Your task to perform on an android device: Go to eBay Image 0: 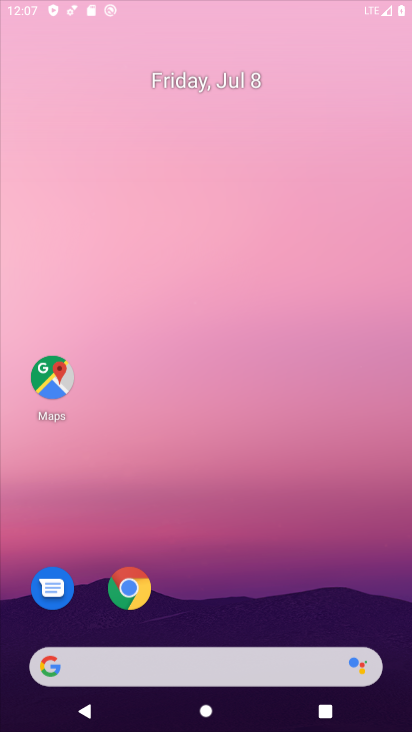
Step 0: press home button
Your task to perform on an android device: Go to eBay Image 1: 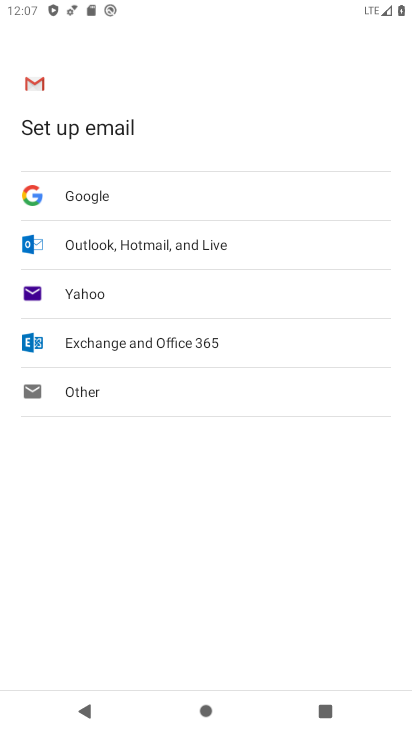
Step 1: click (267, 104)
Your task to perform on an android device: Go to eBay Image 2: 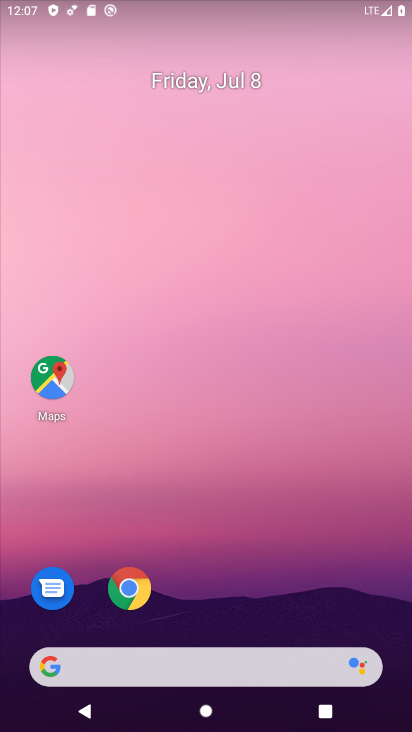
Step 2: drag from (210, 627) to (251, 9)
Your task to perform on an android device: Go to eBay Image 3: 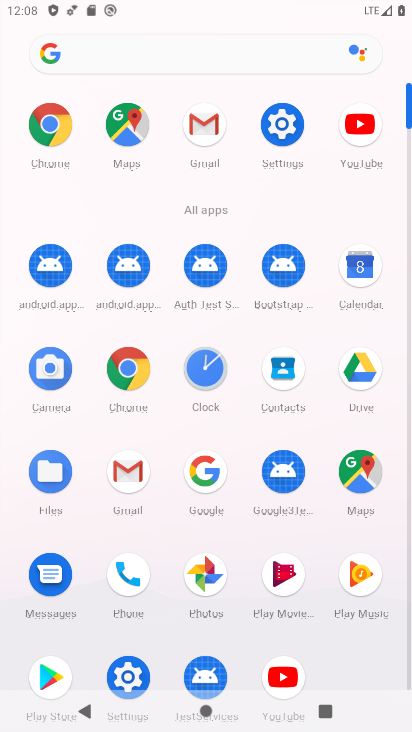
Step 3: click (123, 357)
Your task to perform on an android device: Go to eBay Image 4: 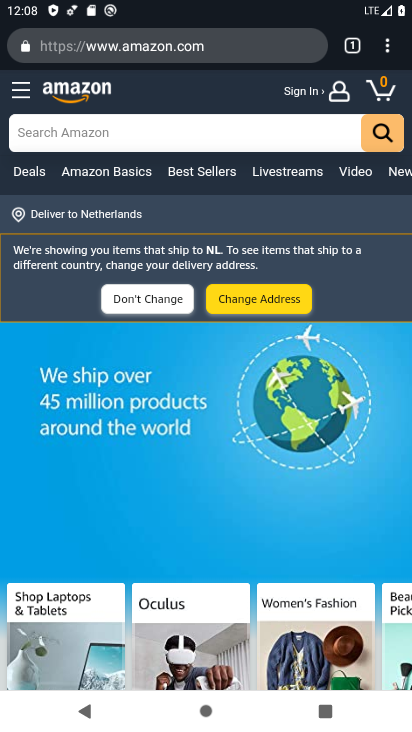
Step 4: click (349, 43)
Your task to perform on an android device: Go to eBay Image 5: 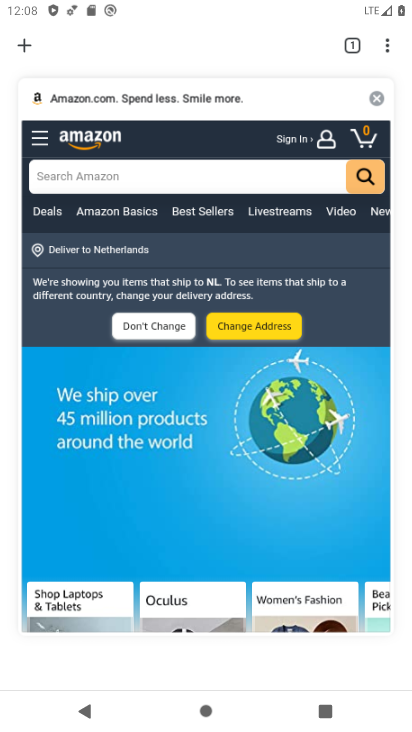
Step 5: click (379, 95)
Your task to perform on an android device: Go to eBay Image 6: 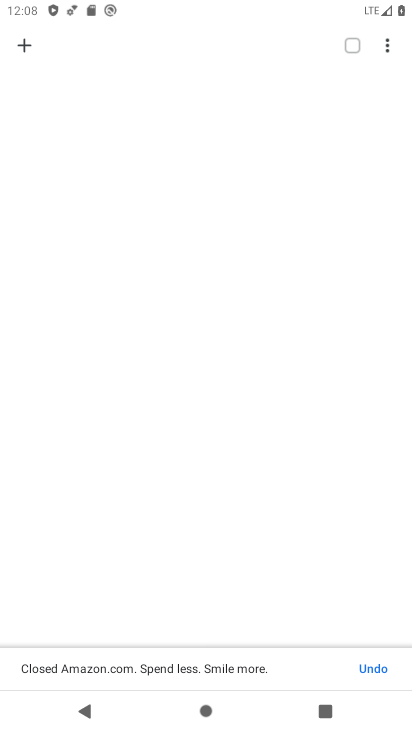
Step 6: click (30, 40)
Your task to perform on an android device: Go to eBay Image 7: 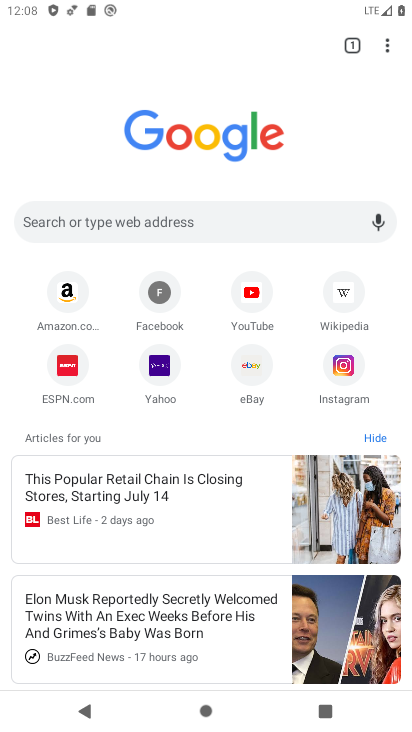
Step 7: click (249, 359)
Your task to perform on an android device: Go to eBay Image 8: 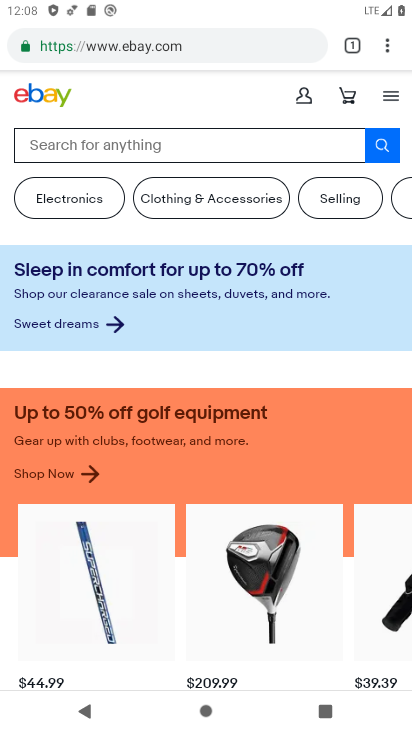
Step 8: drag from (183, 638) to (224, 157)
Your task to perform on an android device: Go to eBay Image 9: 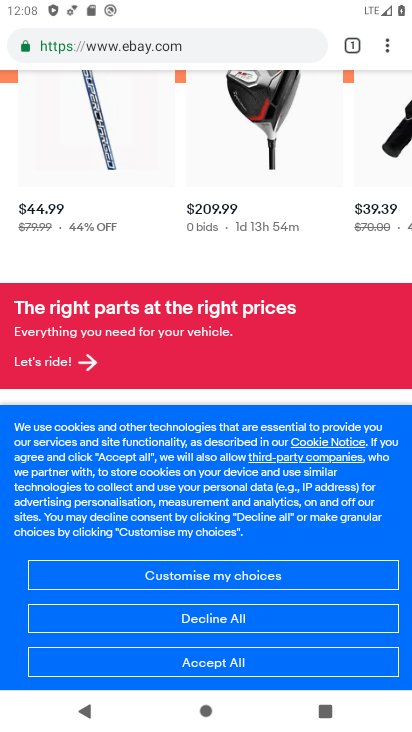
Step 9: click (231, 665)
Your task to perform on an android device: Go to eBay Image 10: 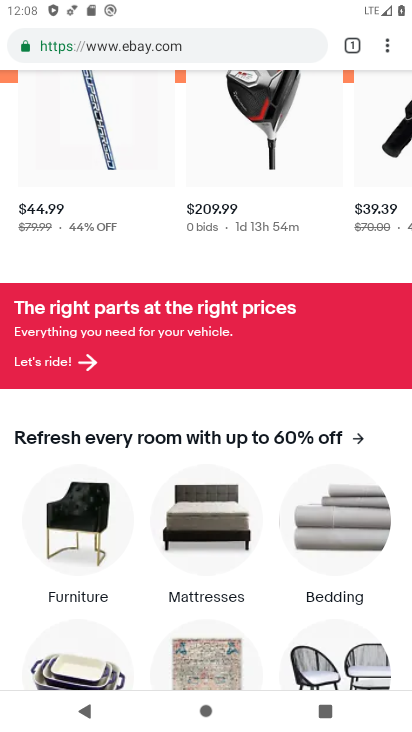
Step 10: task complete